Your task to perform on an android device: change the clock style Image 0: 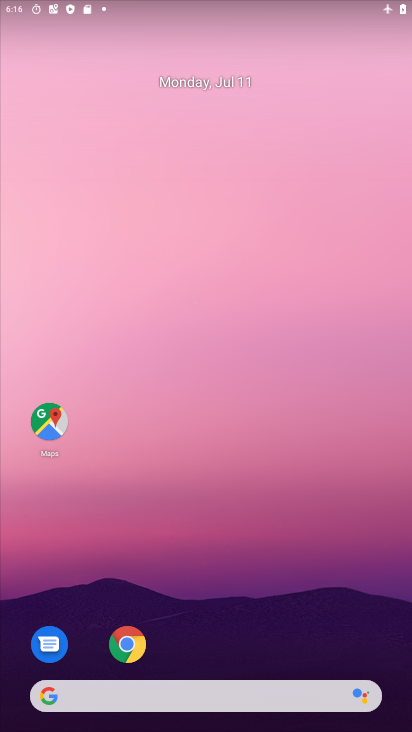
Step 0: drag from (285, 687) to (261, 122)
Your task to perform on an android device: change the clock style Image 1: 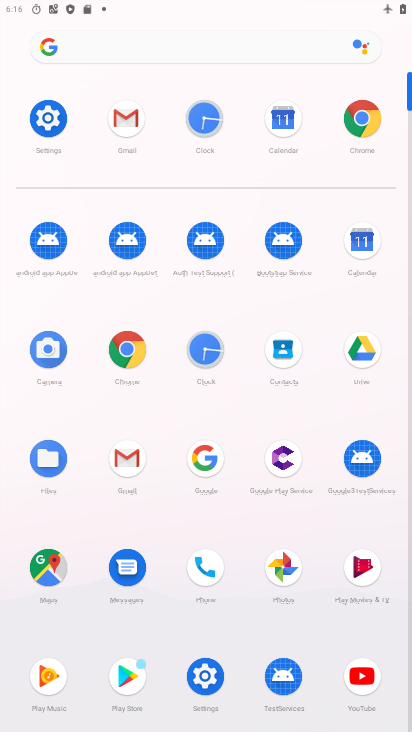
Step 1: click (213, 352)
Your task to perform on an android device: change the clock style Image 2: 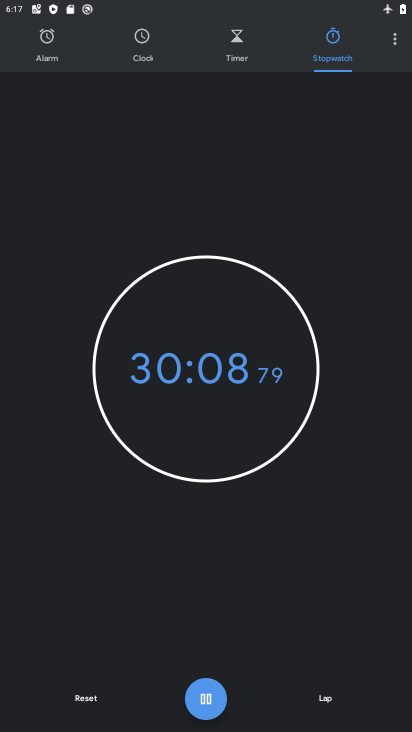
Step 2: click (386, 24)
Your task to perform on an android device: change the clock style Image 3: 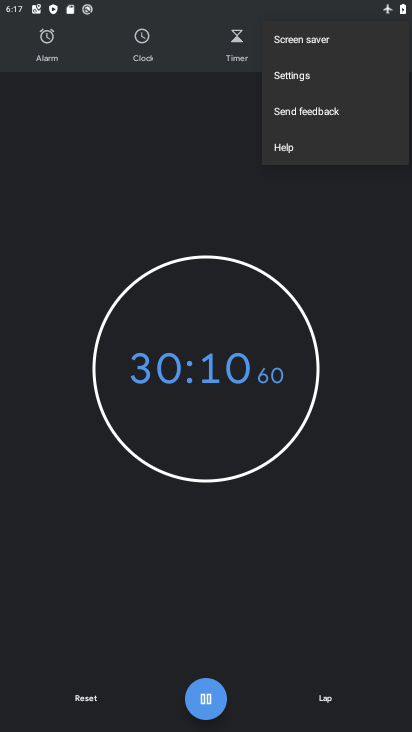
Step 3: click (301, 77)
Your task to perform on an android device: change the clock style Image 4: 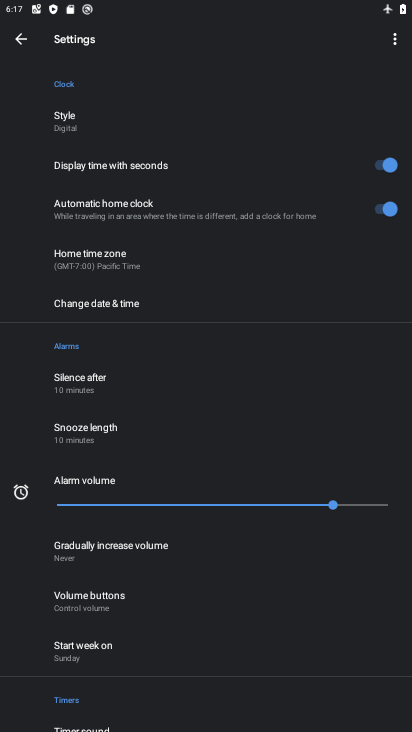
Step 4: click (70, 124)
Your task to perform on an android device: change the clock style Image 5: 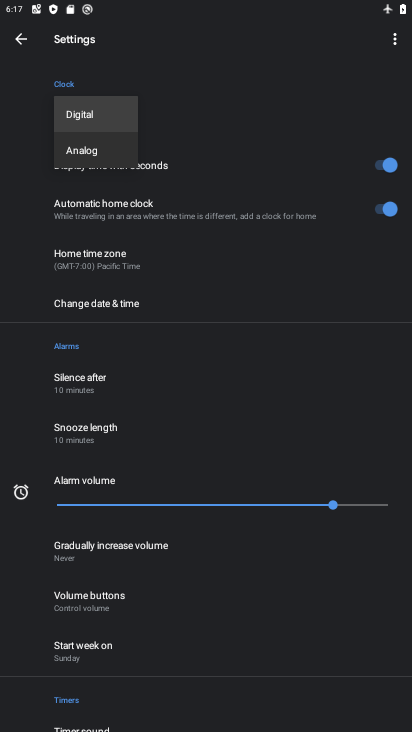
Step 5: click (87, 142)
Your task to perform on an android device: change the clock style Image 6: 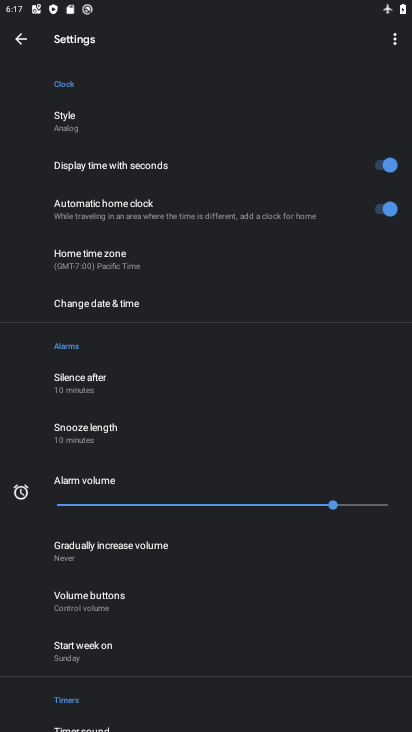
Step 6: task complete